Your task to perform on an android device: change keyboard looks Image 0: 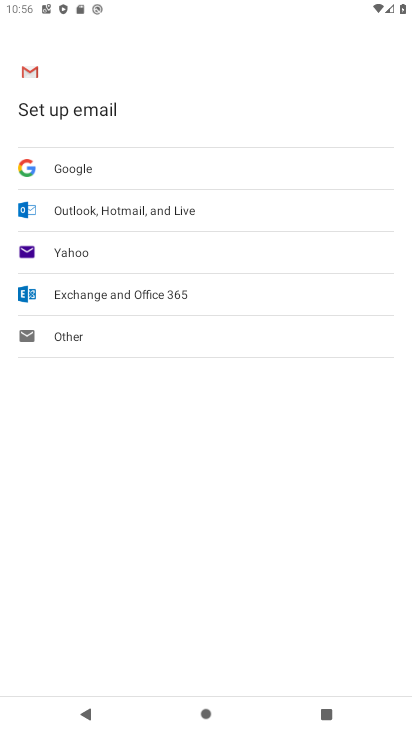
Step 0: press home button
Your task to perform on an android device: change keyboard looks Image 1: 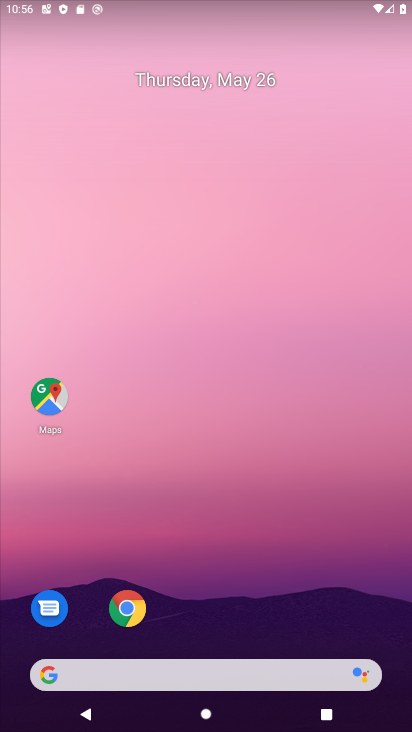
Step 1: drag from (194, 632) to (181, 188)
Your task to perform on an android device: change keyboard looks Image 2: 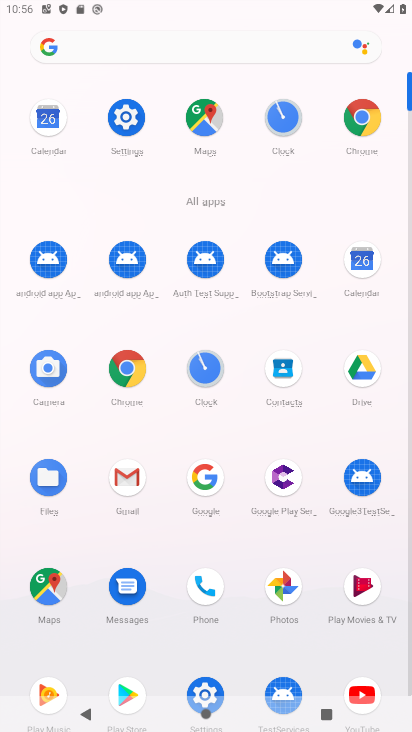
Step 2: click (208, 684)
Your task to perform on an android device: change keyboard looks Image 3: 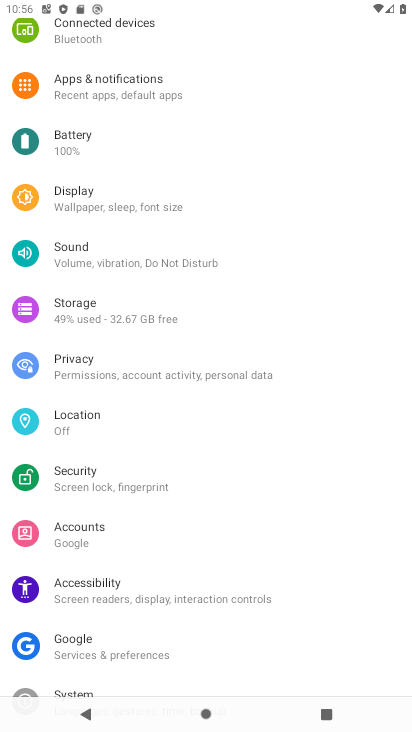
Step 3: drag from (185, 671) to (148, 75)
Your task to perform on an android device: change keyboard looks Image 4: 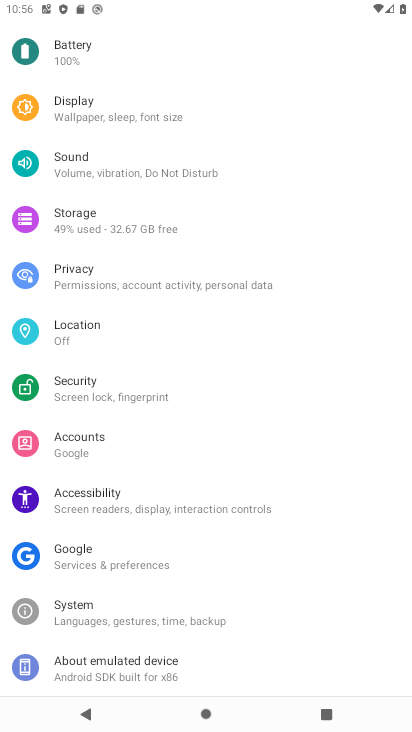
Step 4: click (127, 614)
Your task to perform on an android device: change keyboard looks Image 5: 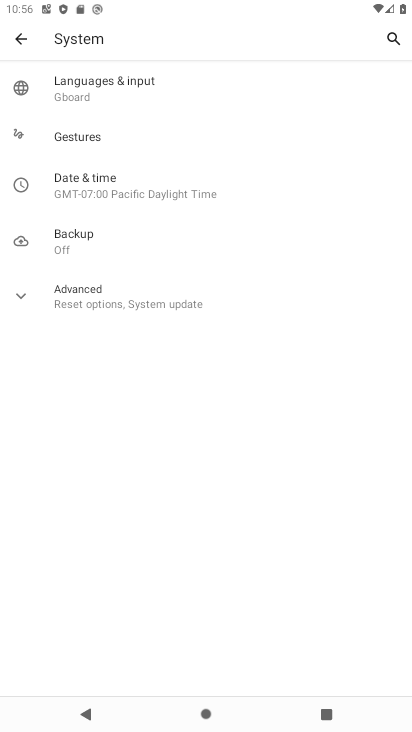
Step 5: click (150, 92)
Your task to perform on an android device: change keyboard looks Image 6: 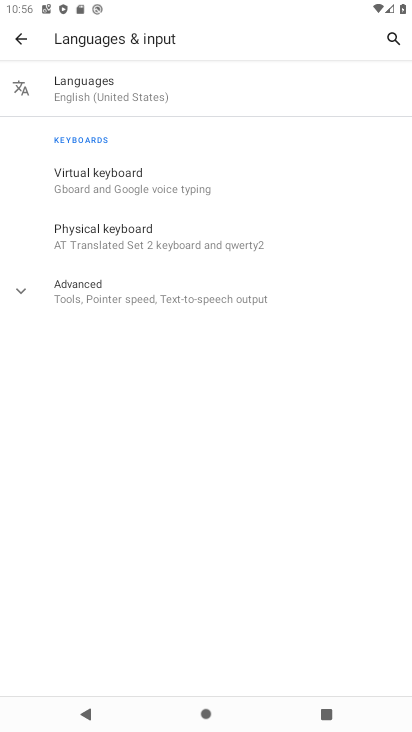
Step 6: click (150, 92)
Your task to perform on an android device: change keyboard looks Image 7: 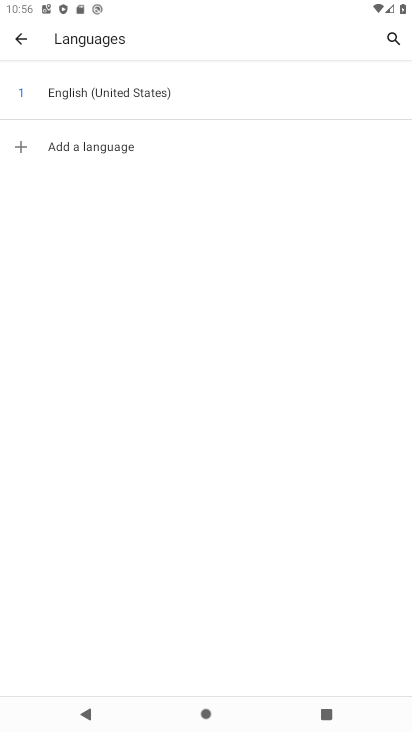
Step 7: click (29, 37)
Your task to perform on an android device: change keyboard looks Image 8: 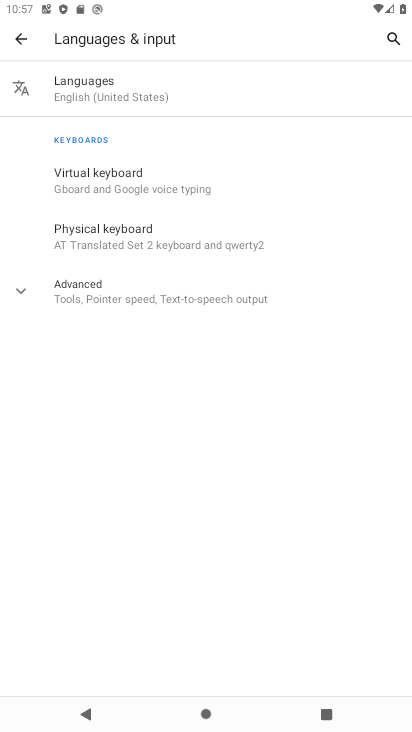
Step 8: click (144, 176)
Your task to perform on an android device: change keyboard looks Image 9: 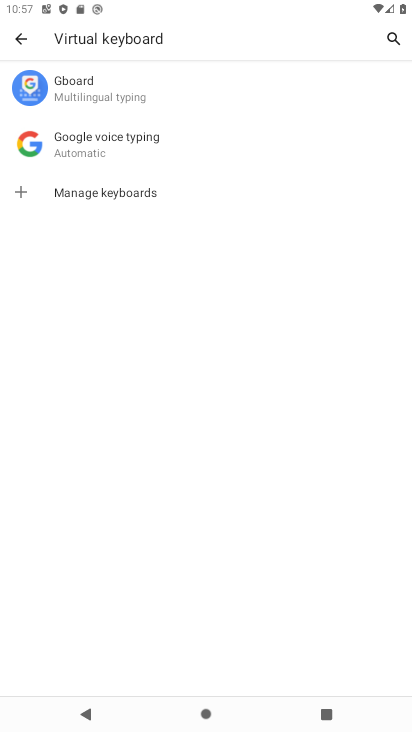
Step 9: click (129, 91)
Your task to perform on an android device: change keyboard looks Image 10: 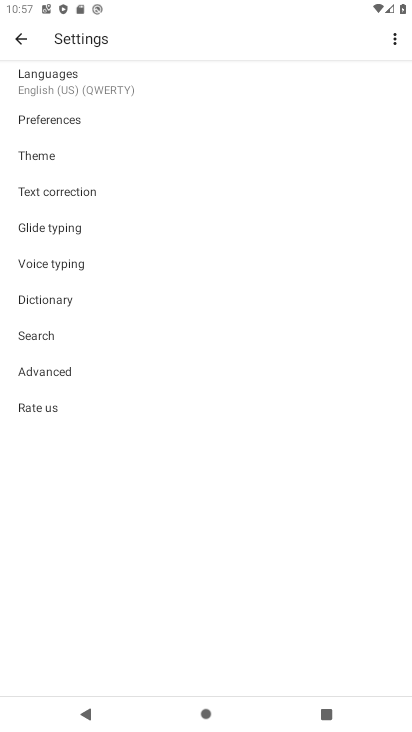
Step 10: click (140, 156)
Your task to perform on an android device: change keyboard looks Image 11: 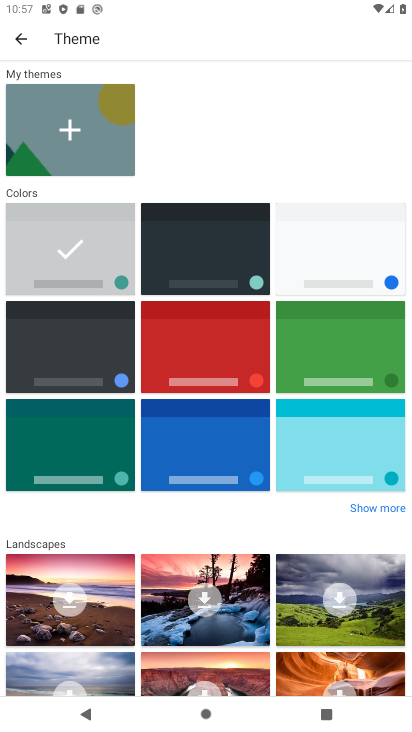
Step 11: click (178, 233)
Your task to perform on an android device: change keyboard looks Image 12: 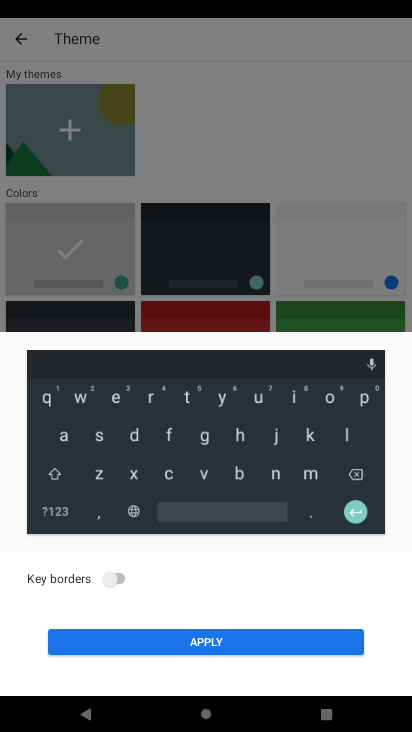
Step 12: click (292, 636)
Your task to perform on an android device: change keyboard looks Image 13: 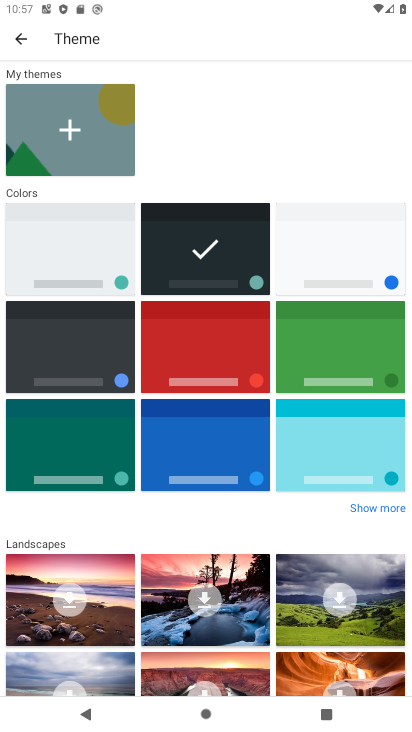
Step 13: task complete